Your task to perform on an android device: read, delete, or share a saved page in the chrome app Image 0: 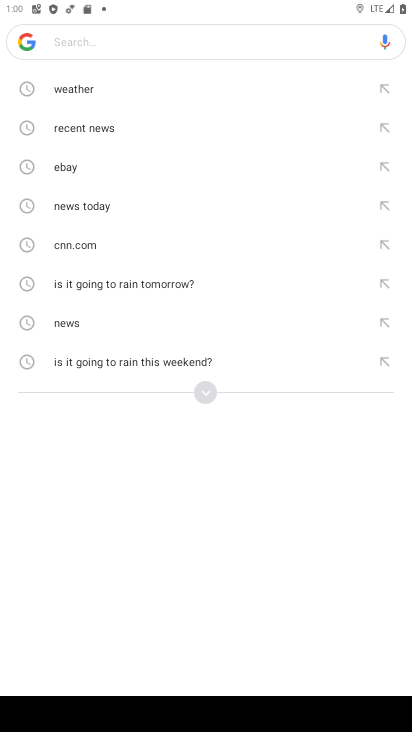
Step 0: click (263, 547)
Your task to perform on an android device: read, delete, or share a saved page in the chrome app Image 1: 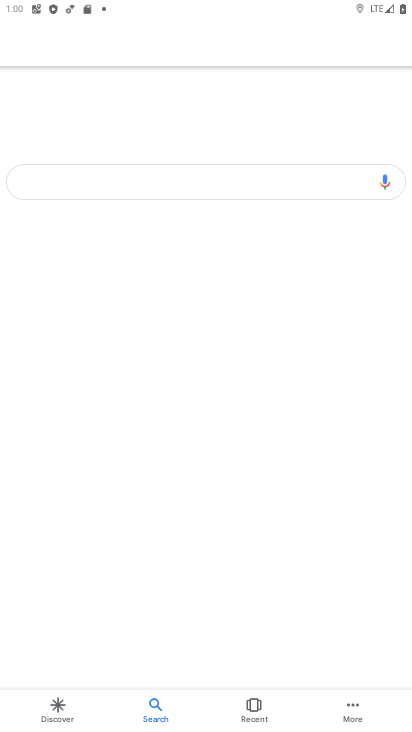
Step 1: press home button
Your task to perform on an android device: read, delete, or share a saved page in the chrome app Image 2: 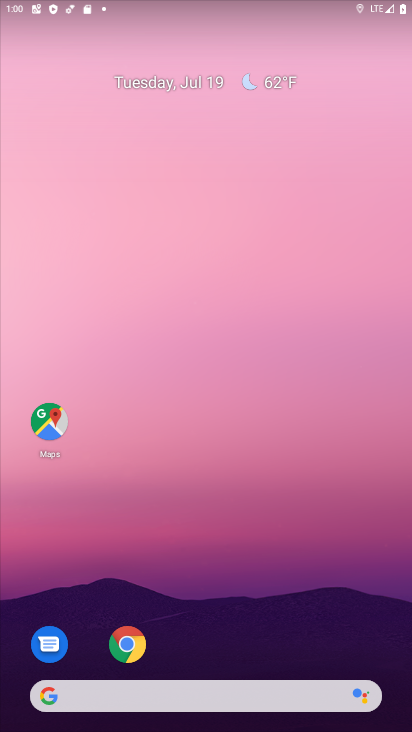
Step 2: click (138, 640)
Your task to perform on an android device: read, delete, or share a saved page in the chrome app Image 3: 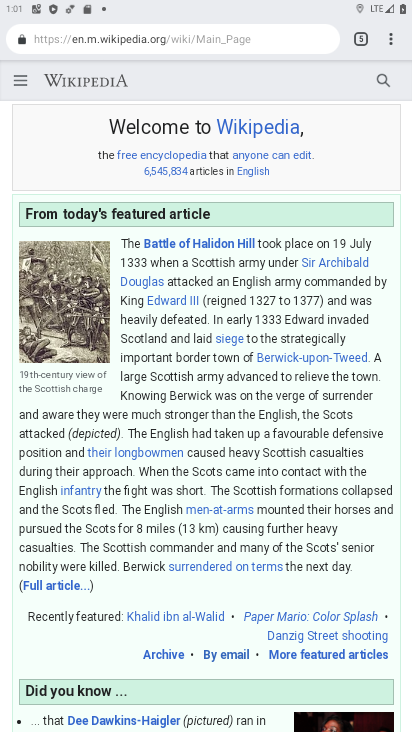
Step 3: click (391, 29)
Your task to perform on an android device: read, delete, or share a saved page in the chrome app Image 4: 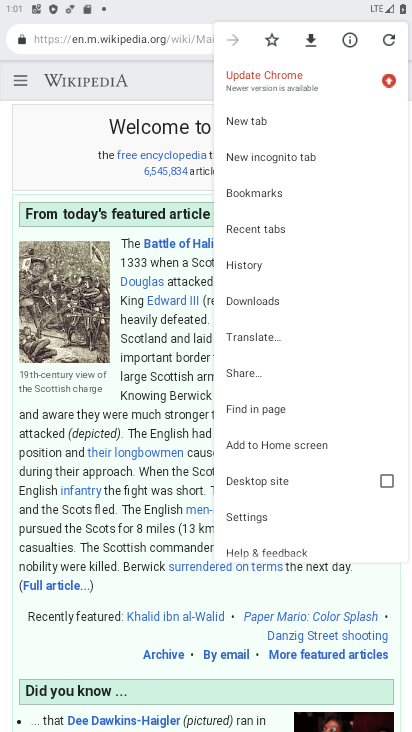
Step 4: click (256, 297)
Your task to perform on an android device: read, delete, or share a saved page in the chrome app Image 5: 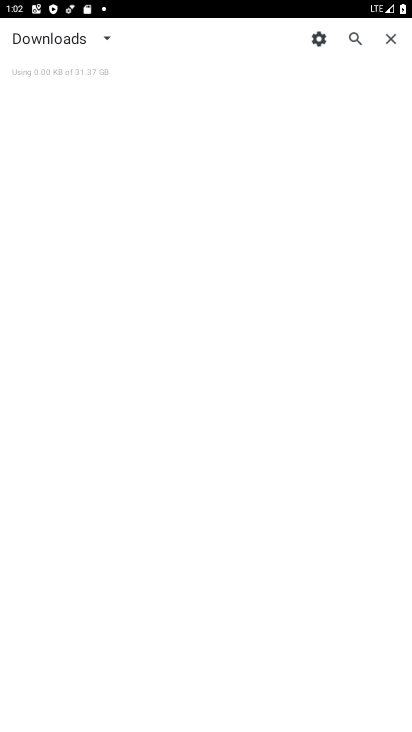
Step 5: task complete